Your task to perform on an android device: refresh tabs in the chrome app Image 0: 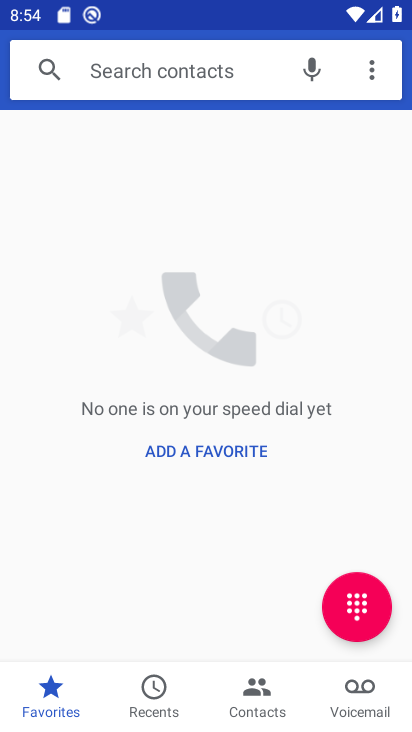
Step 0: press home button
Your task to perform on an android device: refresh tabs in the chrome app Image 1: 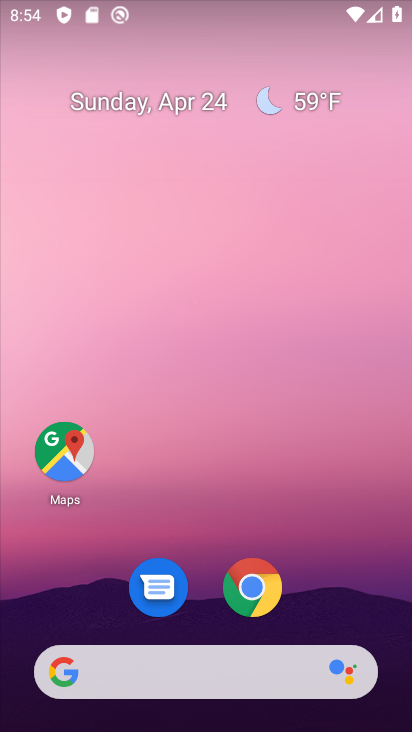
Step 1: click (253, 588)
Your task to perform on an android device: refresh tabs in the chrome app Image 2: 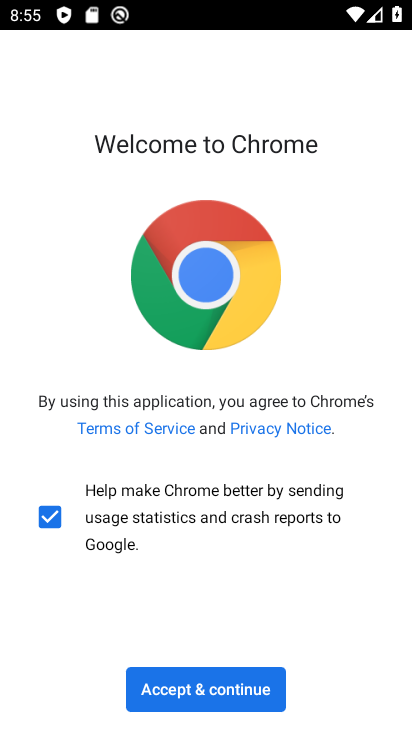
Step 2: click (198, 690)
Your task to perform on an android device: refresh tabs in the chrome app Image 3: 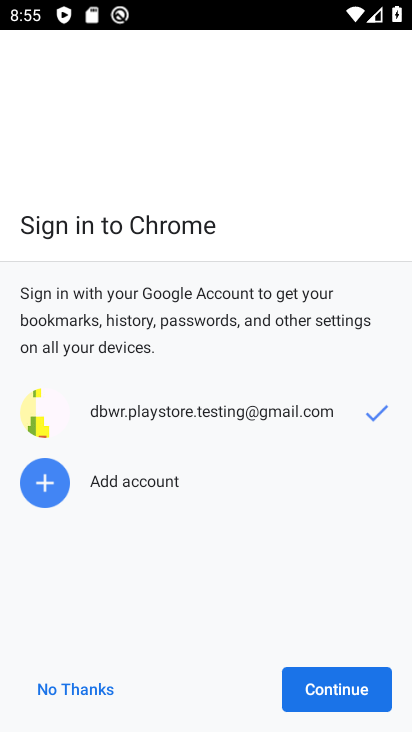
Step 3: click (320, 676)
Your task to perform on an android device: refresh tabs in the chrome app Image 4: 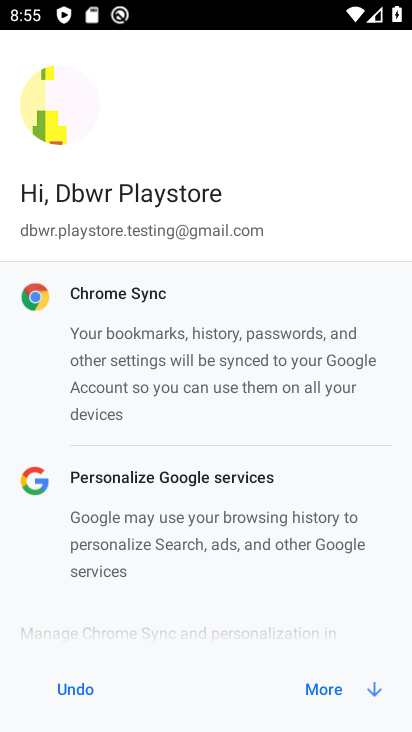
Step 4: click (328, 692)
Your task to perform on an android device: refresh tabs in the chrome app Image 5: 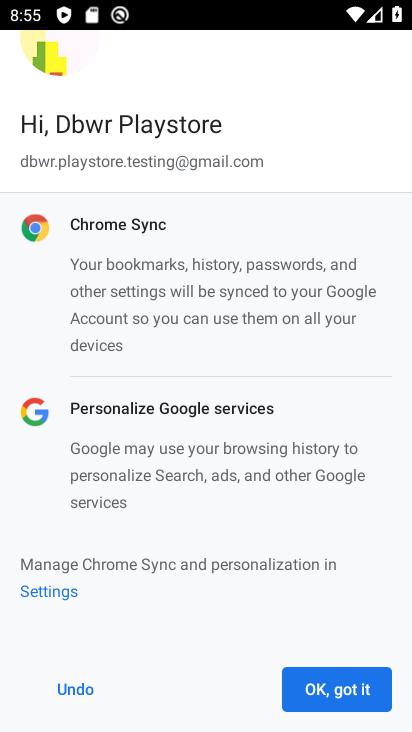
Step 5: click (328, 692)
Your task to perform on an android device: refresh tabs in the chrome app Image 6: 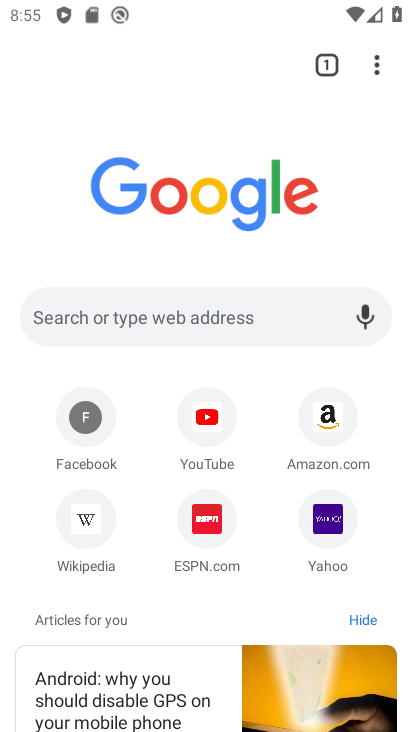
Step 6: click (379, 65)
Your task to perform on an android device: refresh tabs in the chrome app Image 7: 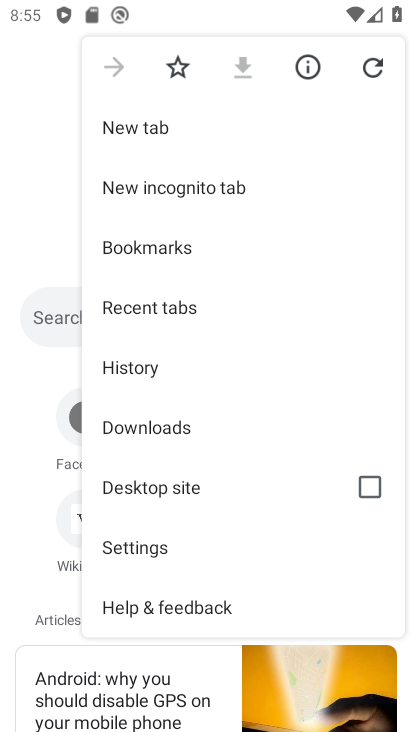
Step 7: click (370, 69)
Your task to perform on an android device: refresh tabs in the chrome app Image 8: 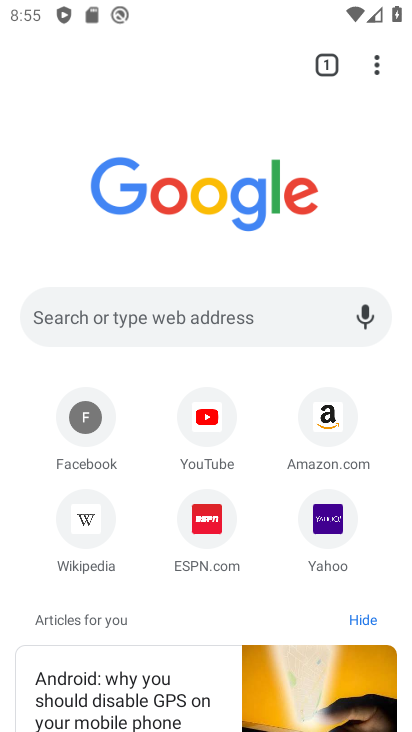
Step 8: task complete